Your task to perform on an android device: Go to Android settings Image 0: 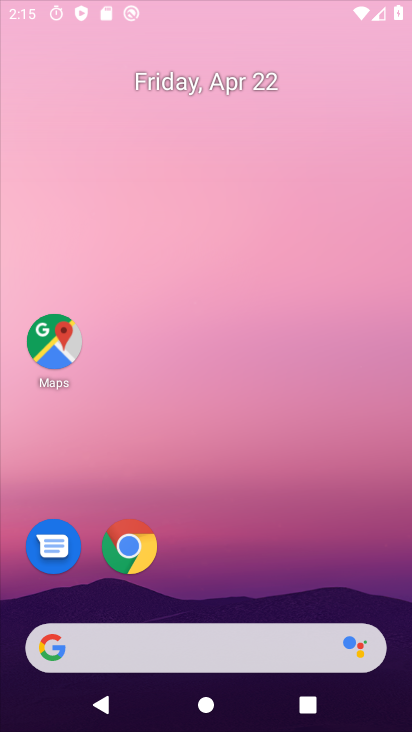
Step 0: click (219, 80)
Your task to perform on an android device: Go to Android settings Image 1: 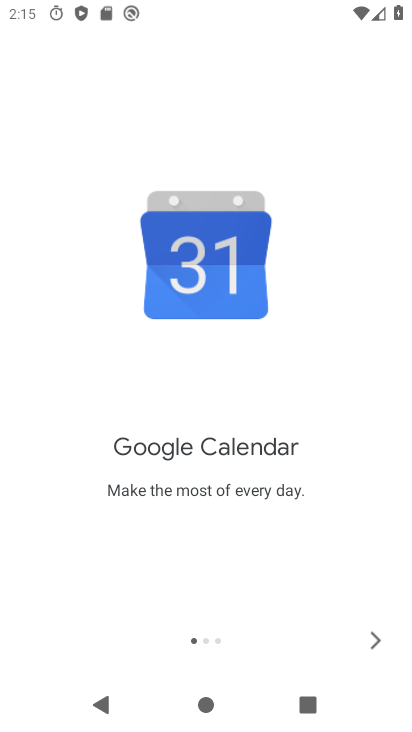
Step 1: press home button
Your task to perform on an android device: Go to Android settings Image 2: 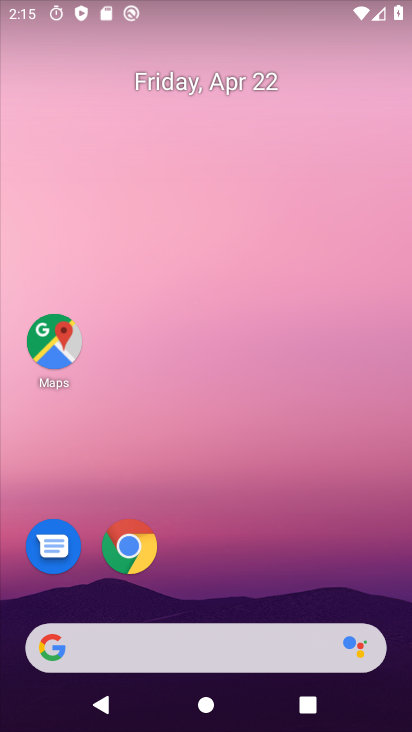
Step 2: drag from (184, 567) to (172, 111)
Your task to perform on an android device: Go to Android settings Image 3: 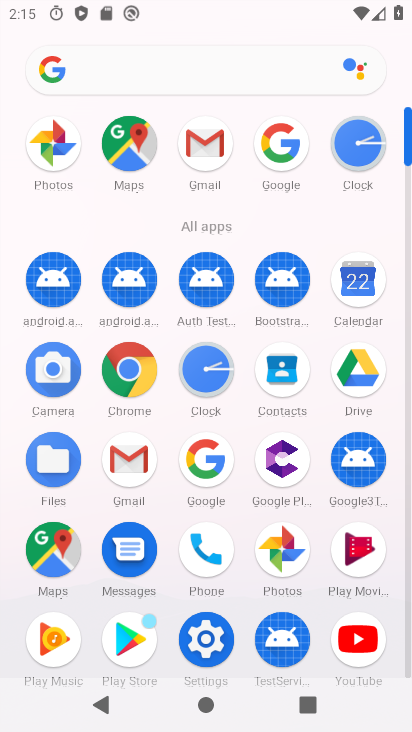
Step 3: click (195, 630)
Your task to perform on an android device: Go to Android settings Image 4: 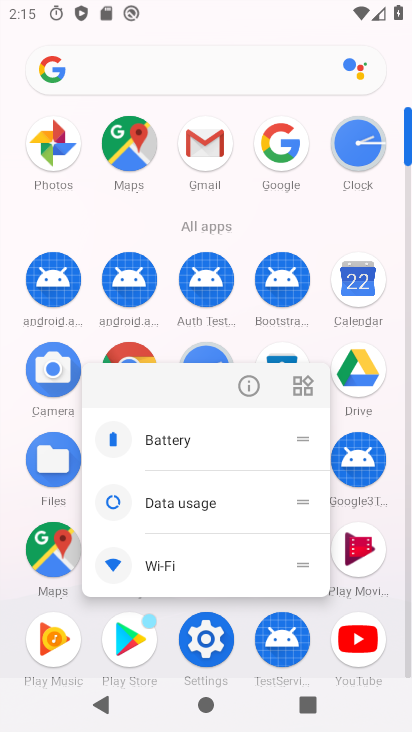
Step 4: click (248, 386)
Your task to perform on an android device: Go to Android settings Image 5: 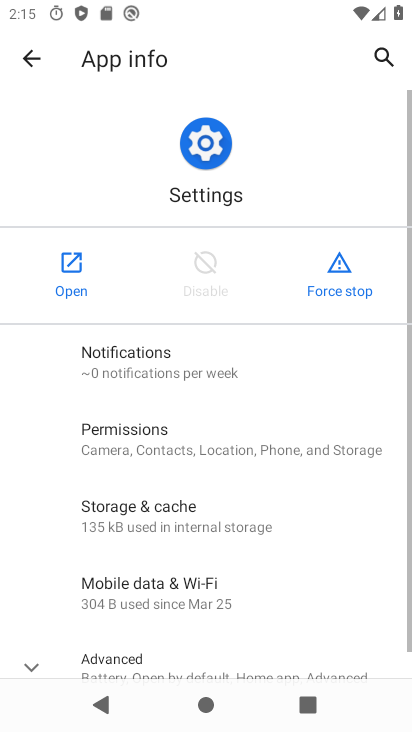
Step 5: click (68, 272)
Your task to perform on an android device: Go to Android settings Image 6: 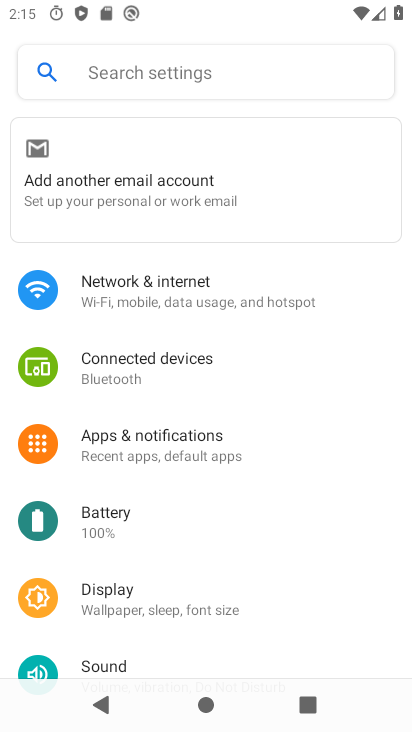
Step 6: drag from (196, 595) to (265, 71)
Your task to perform on an android device: Go to Android settings Image 7: 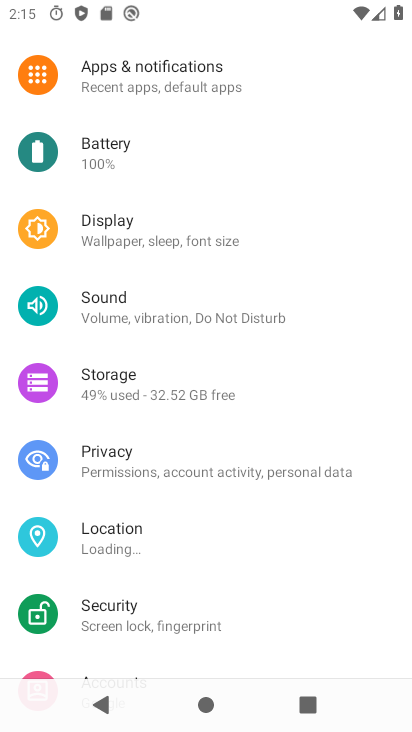
Step 7: drag from (179, 542) to (267, 22)
Your task to perform on an android device: Go to Android settings Image 8: 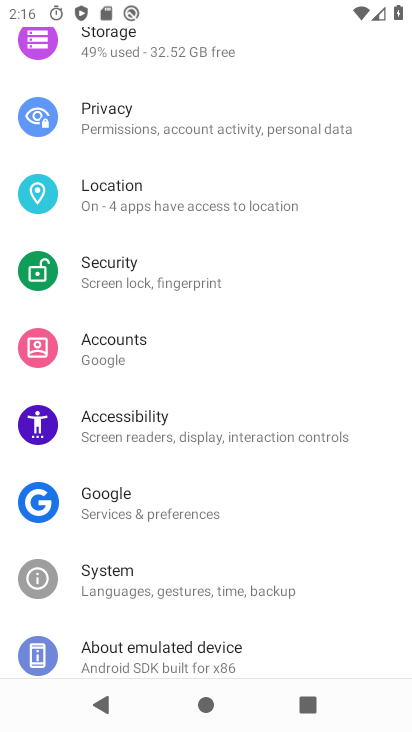
Step 8: click (154, 641)
Your task to perform on an android device: Go to Android settings Image 9: 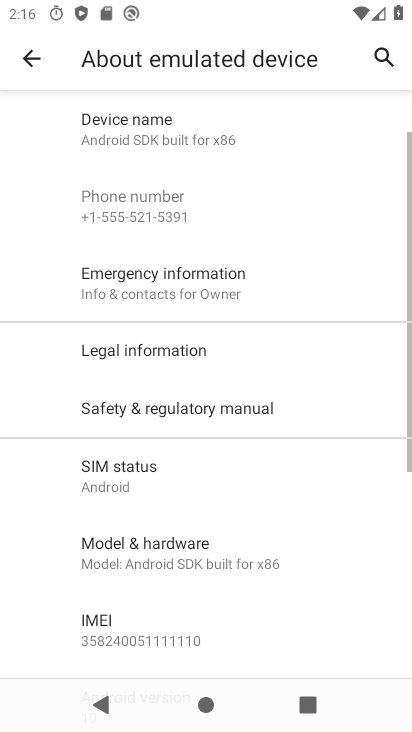
Step 9: drag from (181, 441) to (182, 214)
Your task to perform on an android device: Go to Android settings Image 10: 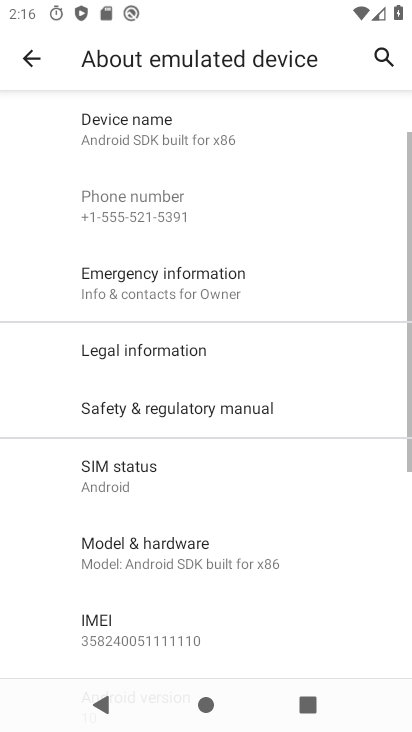
Step 10: drag from (221, 599) to (211, 157)
Your task to perform on an android device: Go to Android settings Image 11: 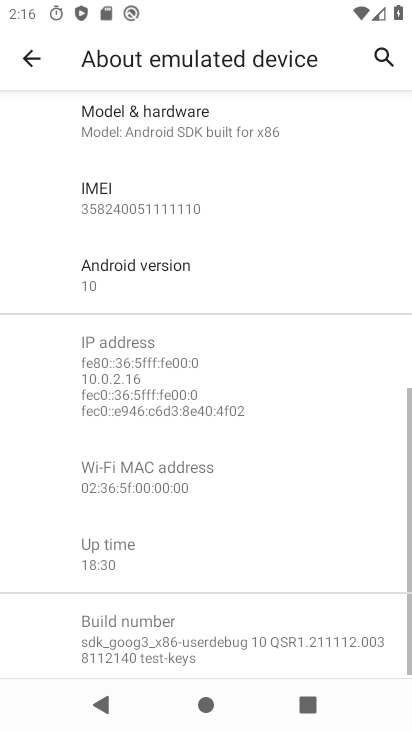
Step 11: click (163, 275)
Your task to perform on an android device: Go to Android settings Image 12: 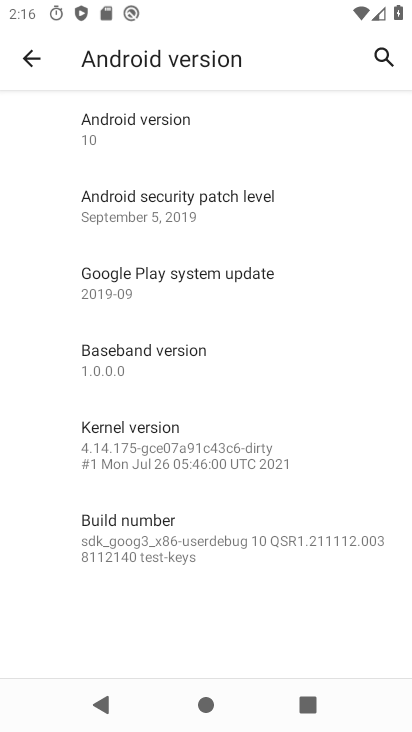
Step 12: click (200, 135)
Your task to perform on an android device: Go to Android settings Image 13: 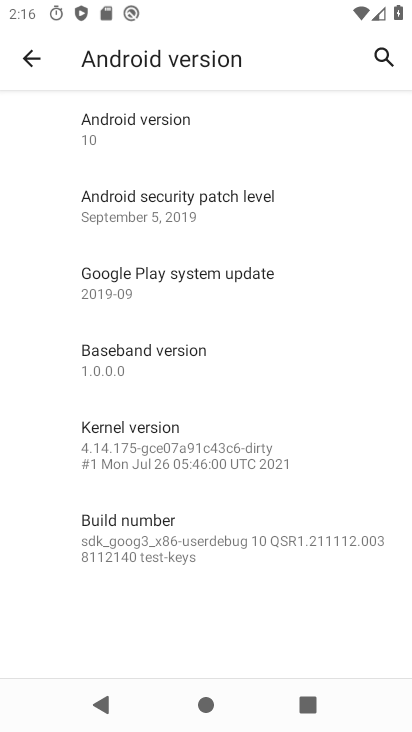
Step 13: task complete